Your task to perform on an android device: What's the weather today? Image 0: 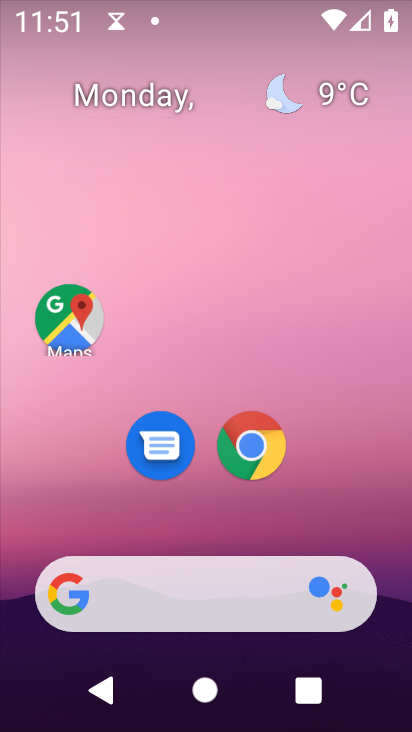
Step 0: drag from (254, 678) to (277, 29)
Your task to perform on an android device: What's the weather today? Image 1: 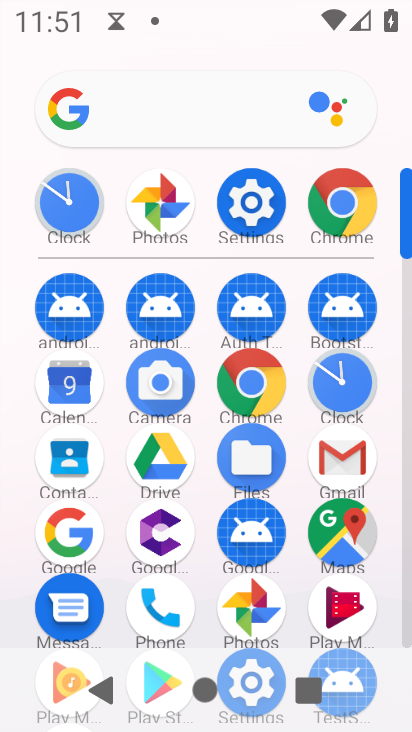
Step 1: click (258, 402)
Your task to perform on an android device: What's the weather today? Image 2: 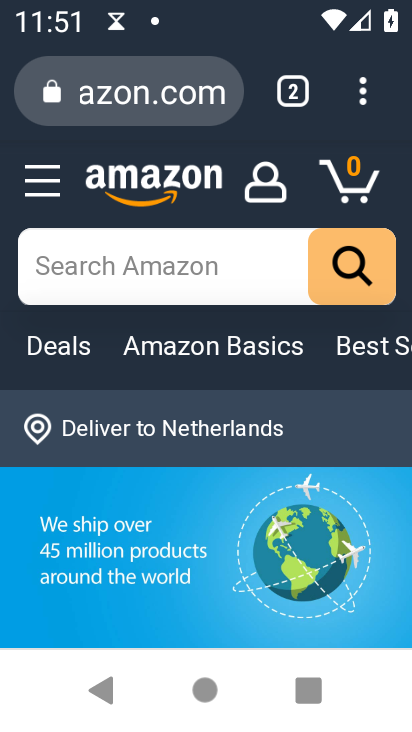
Step 2: click (198, 95)
Your task to perform on an android device: What's the weather today? Image 3: 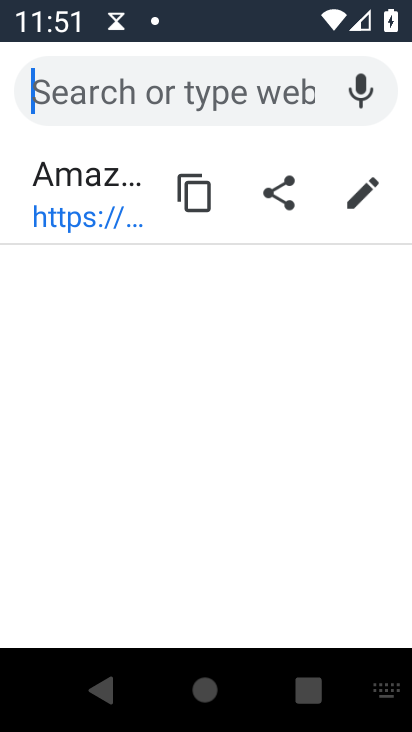
Step 3: type "weather today"
Your task to perform on an android device: What's the weather today? Image 4: 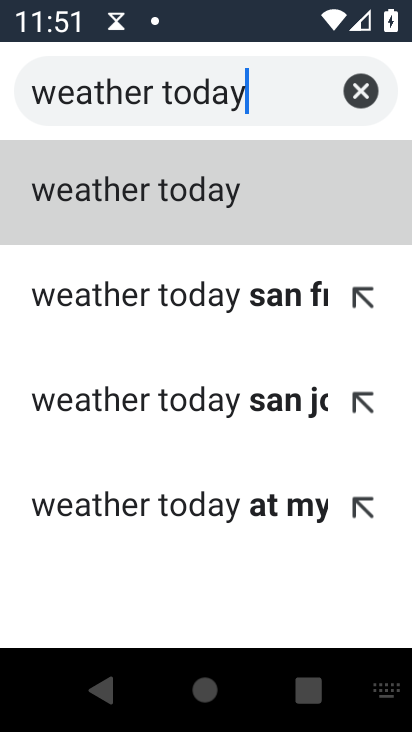
Step 4: click (242, 214)
Your task to perform on an android device: What's the weather today? Image 5: 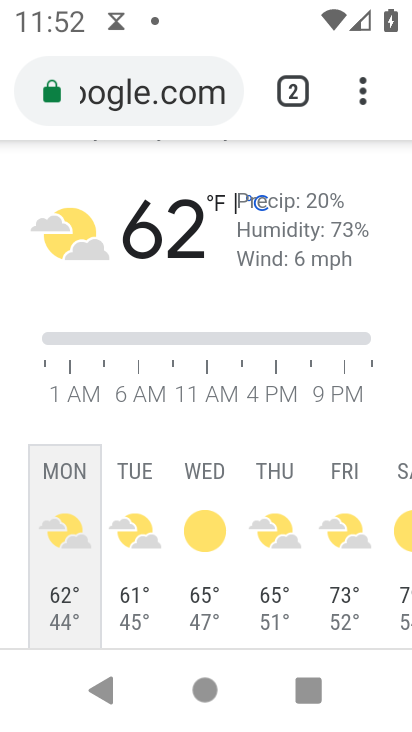
Step 5: task complete